Your task to perform on an android device: open app "Chime – Mobile Banking" (install if not already installed) and enter user name: "bullfrog@inbox.com" and password: "breaker" Image 0: 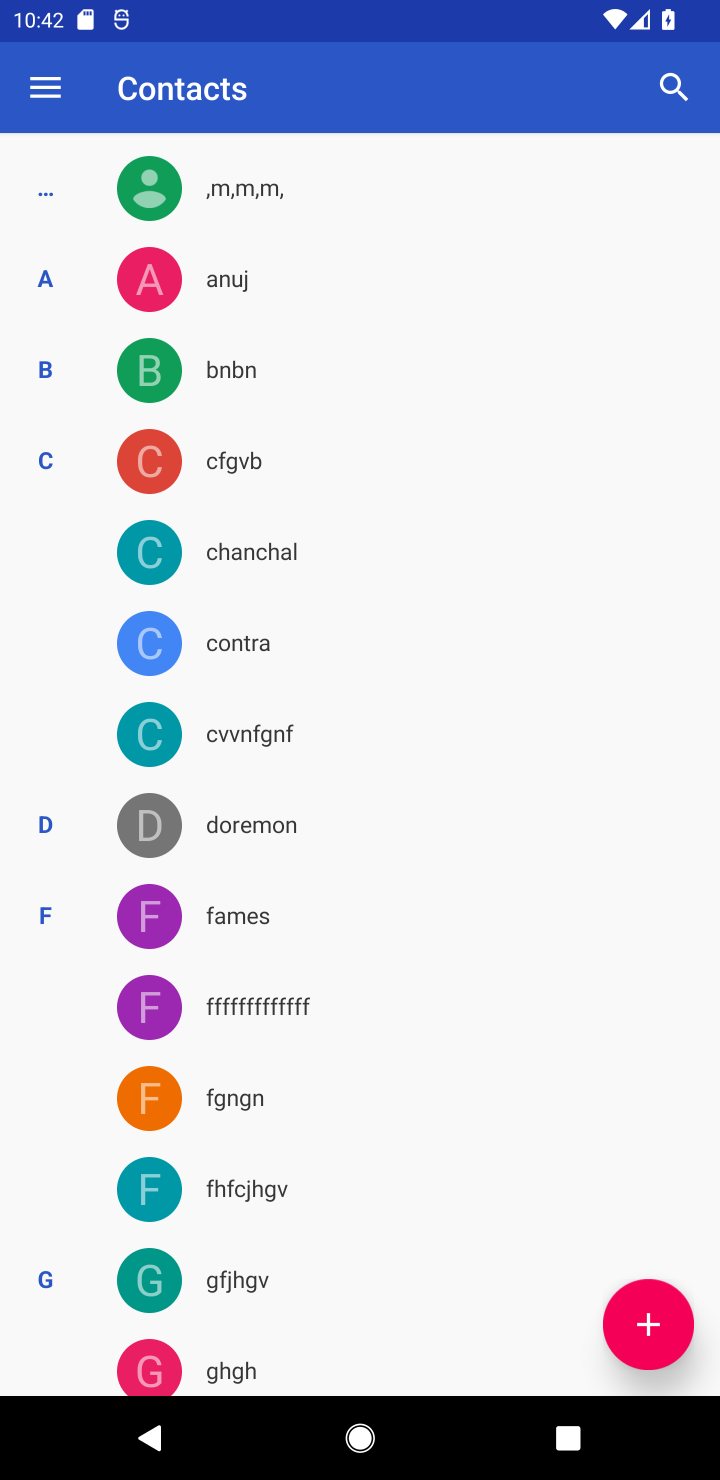
Step 0: press home button
Your task to perform on an android device: open app "Chime – Mobile Banking" (install if not already installed) and enter user name: "bullfrog@inbox.com" and password: "breaker" Image 1: 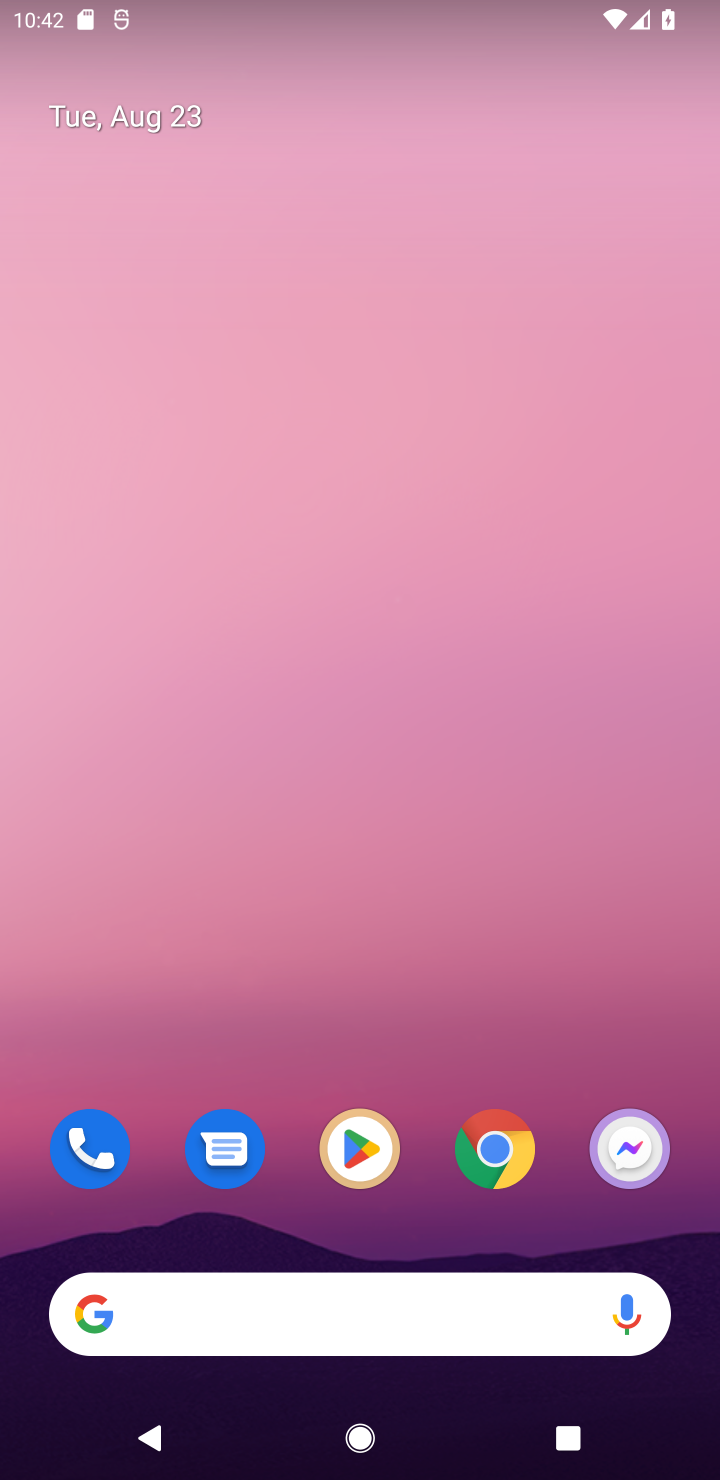
Step 1: click (344, 1125)
Your task to perform on an android device: open app "Chime – Mobile Banking" (install if not already installed) and enter user name: "bullfrog@inbox.com" and password: "breaker" Image 2: 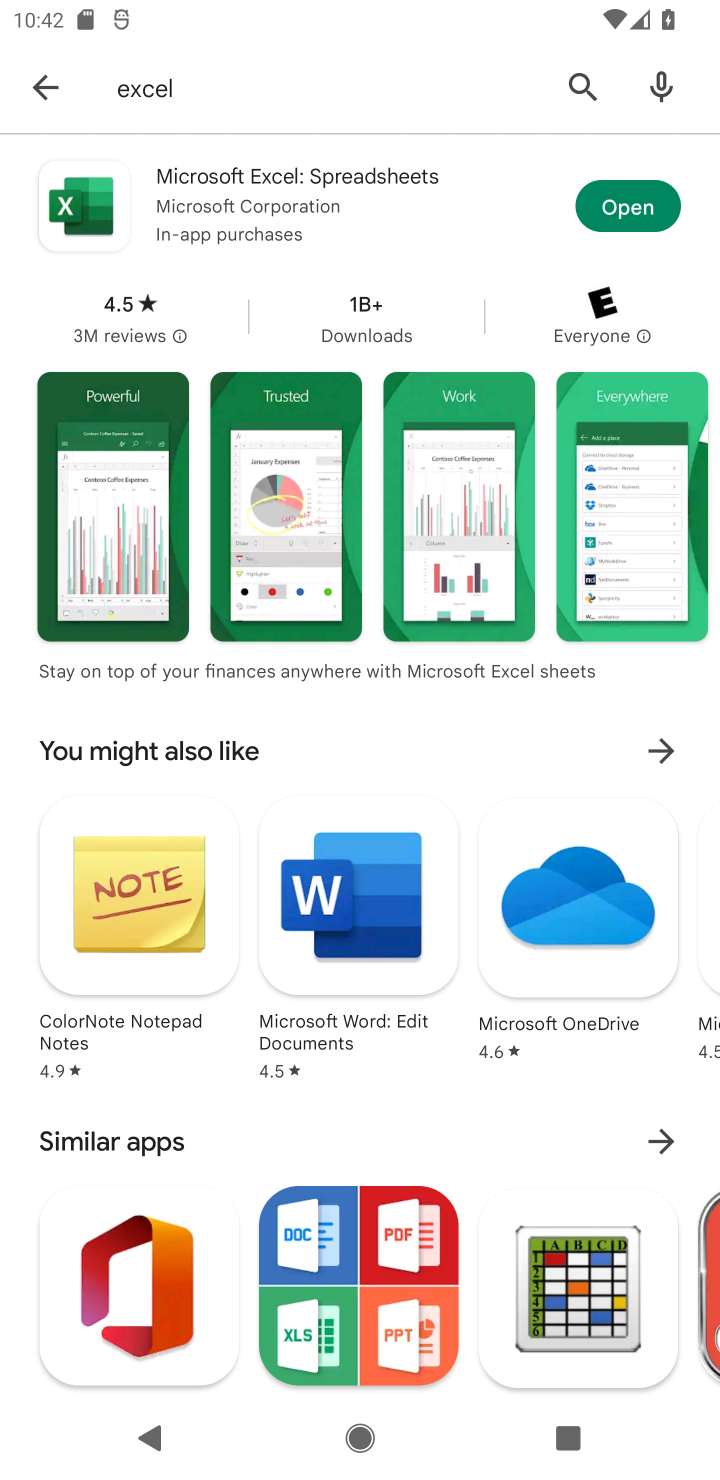
Step 2: click (571, 104)
Your task to perform on an android device: open app "Chime – Mobile Banking" (install if not already installed) and enter user name: "bullfrog@inbox.com" and password: "breaker" Image 3: 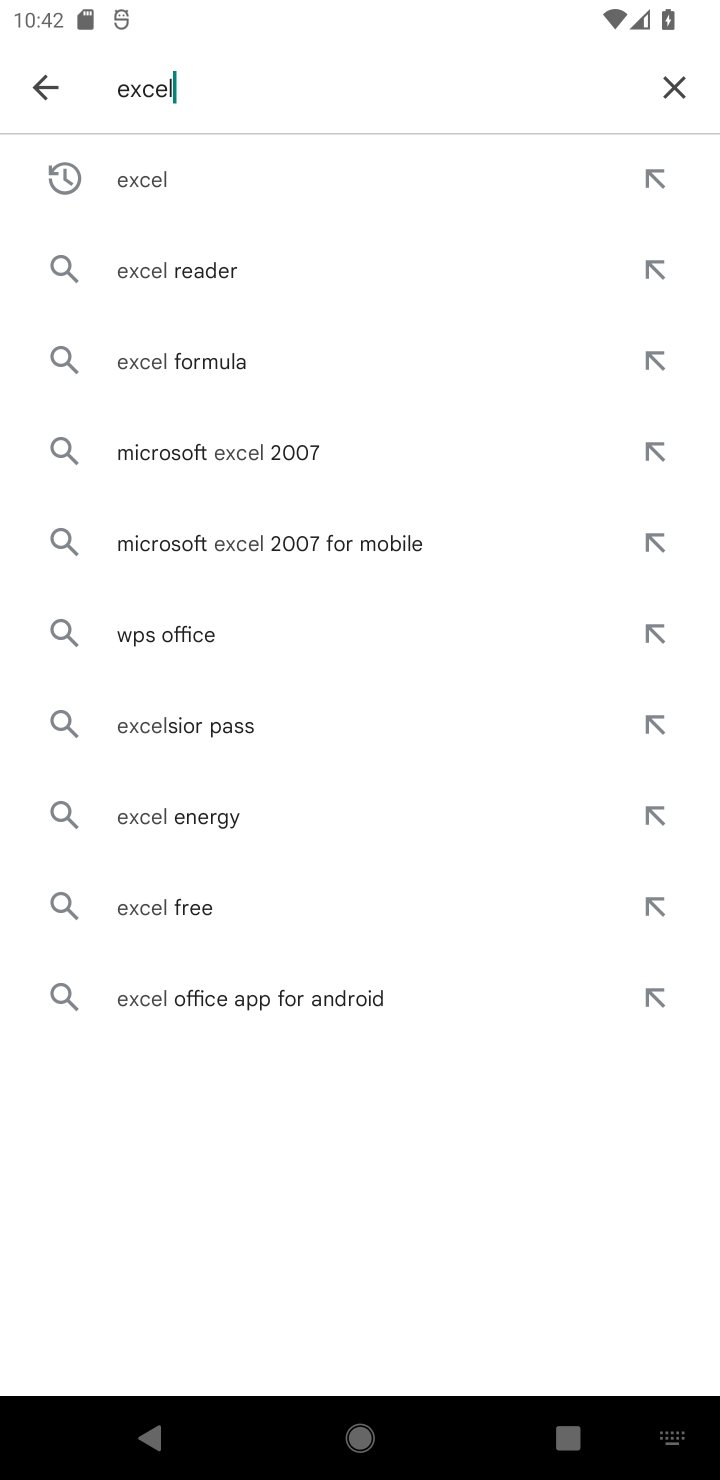
Step 3: click (667, 99)
Your task to perform on an android device: open app "Chime – Mobile Banking" (install if not already installed) and enter user name: "bullfrog@inbox.com" and password: "breaker" Image 4: 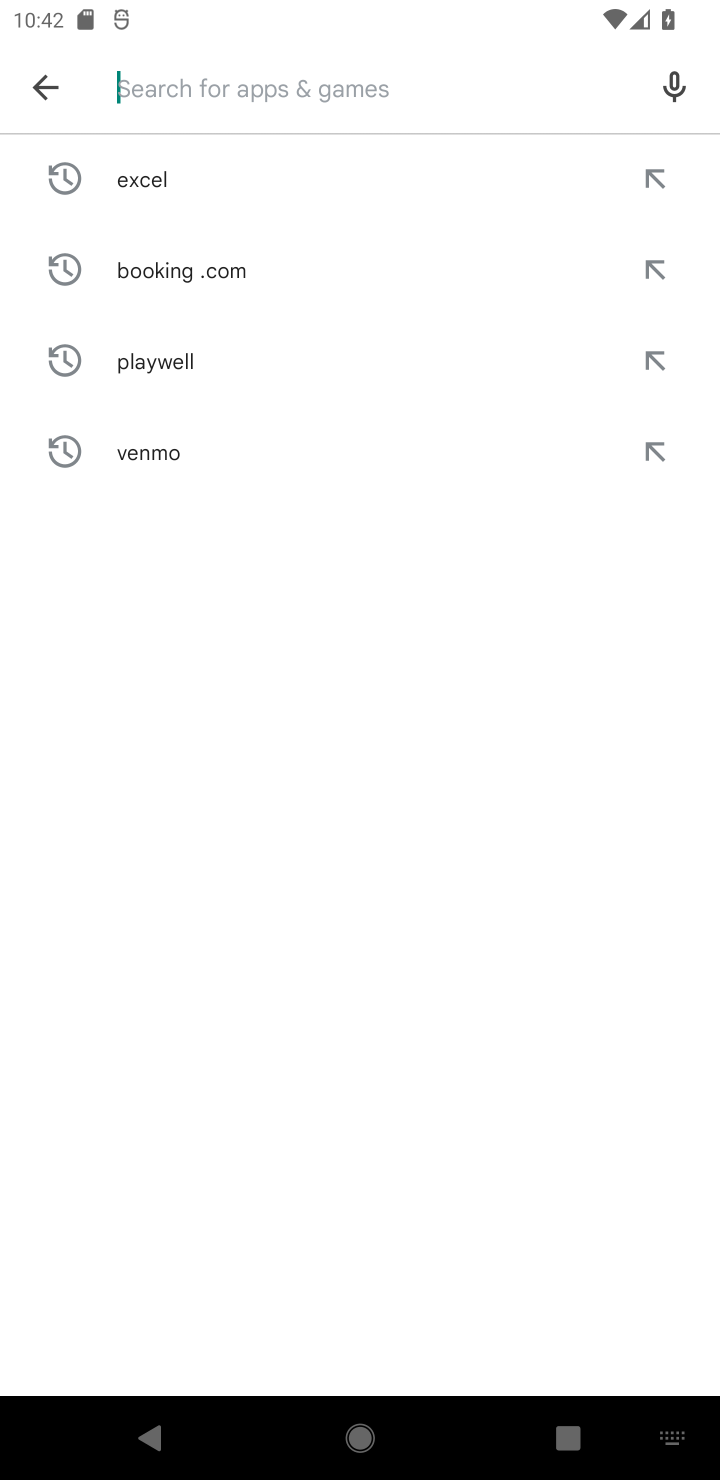
Step 4: type "chinme"
Your task to perform on an android device: open app "Chime – Mobile Banking" (install if not already installed) and enter user name: "bullfrog@inbox.com" and password: "breaker" Image 5: 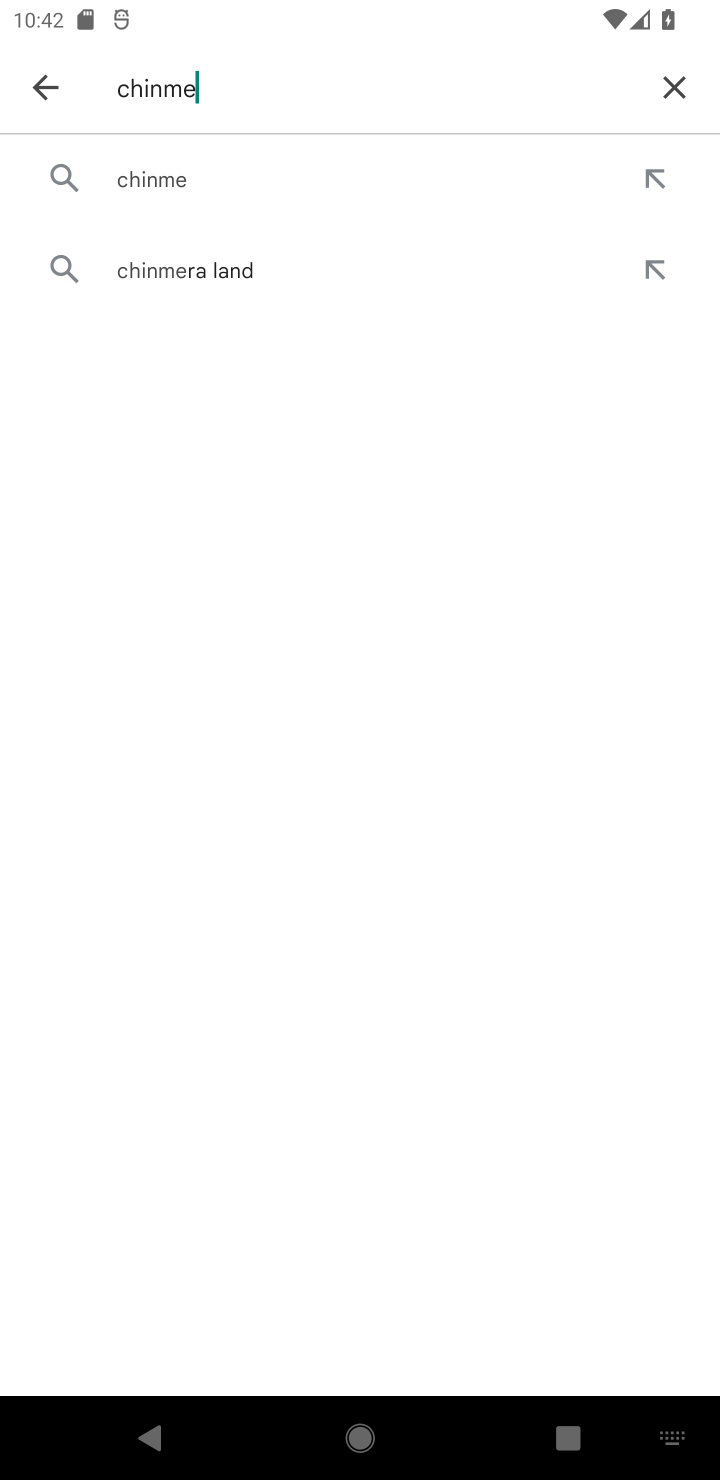
Step 5: click (344, 172)
Your task to perform on an android device: open app "Chime – Mobile Banking" (install if not already installed) and enter user name: "bullfrog@inbox.com" and password: "breaker" Image 6: 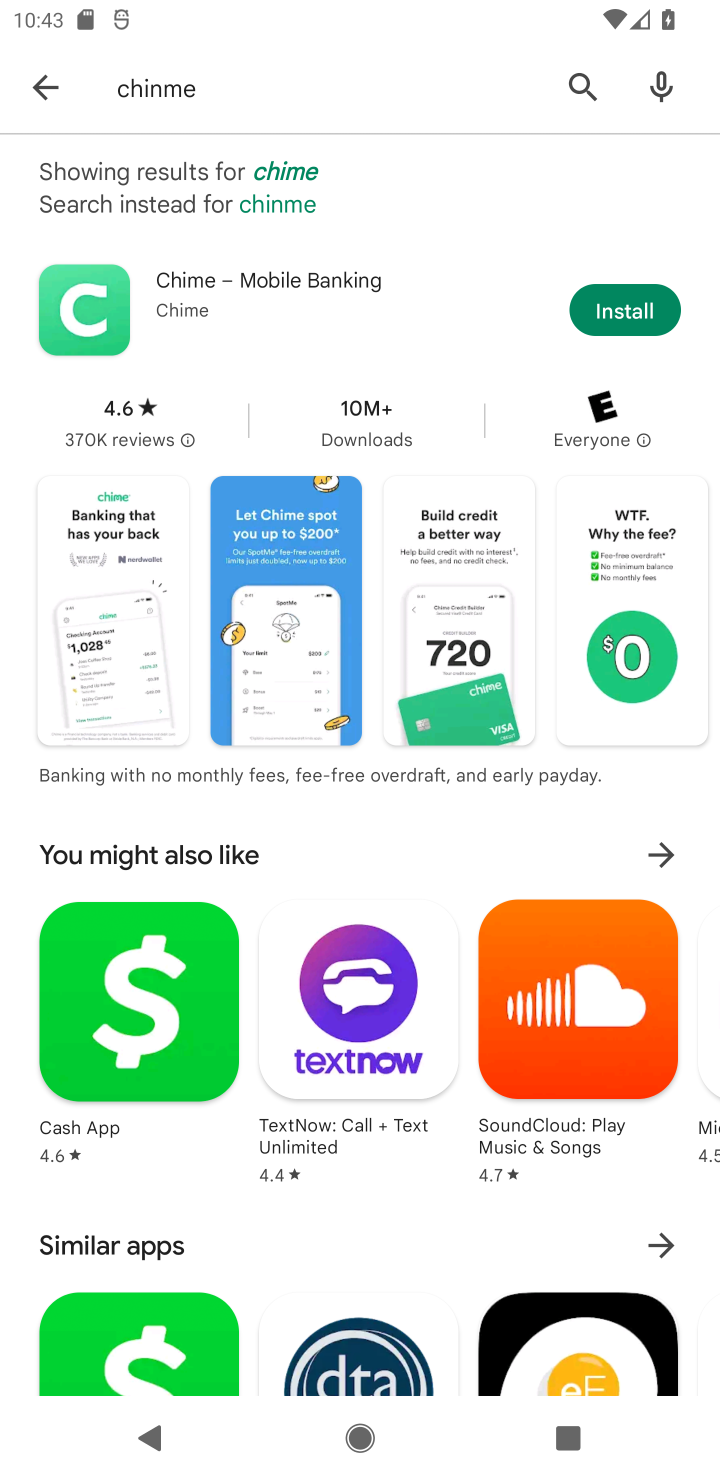
Step 6: click (630, 333)
Your task to perform on an android device: open app "Chime – Mobile Banking" (install if not already installed) and enter user name: "bullfrog@inbox.com" and password: "breaker" Image 7: 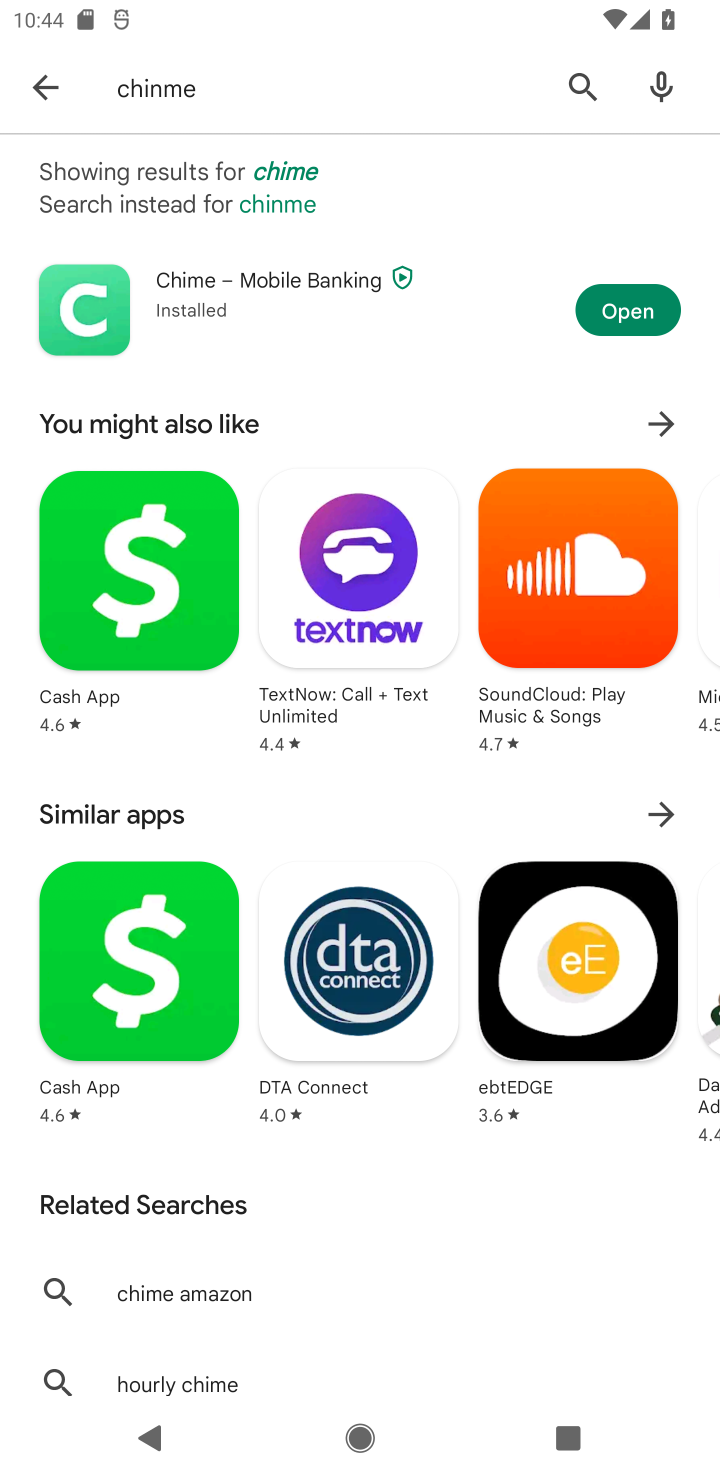
Step 7: click (629, 293)
Your task to perform on an android device: open app "Chime – Mobile Banking" (install if not already installed) and enter user name: "bullfrog@inbox.com" and password: "breaker" Image 8: 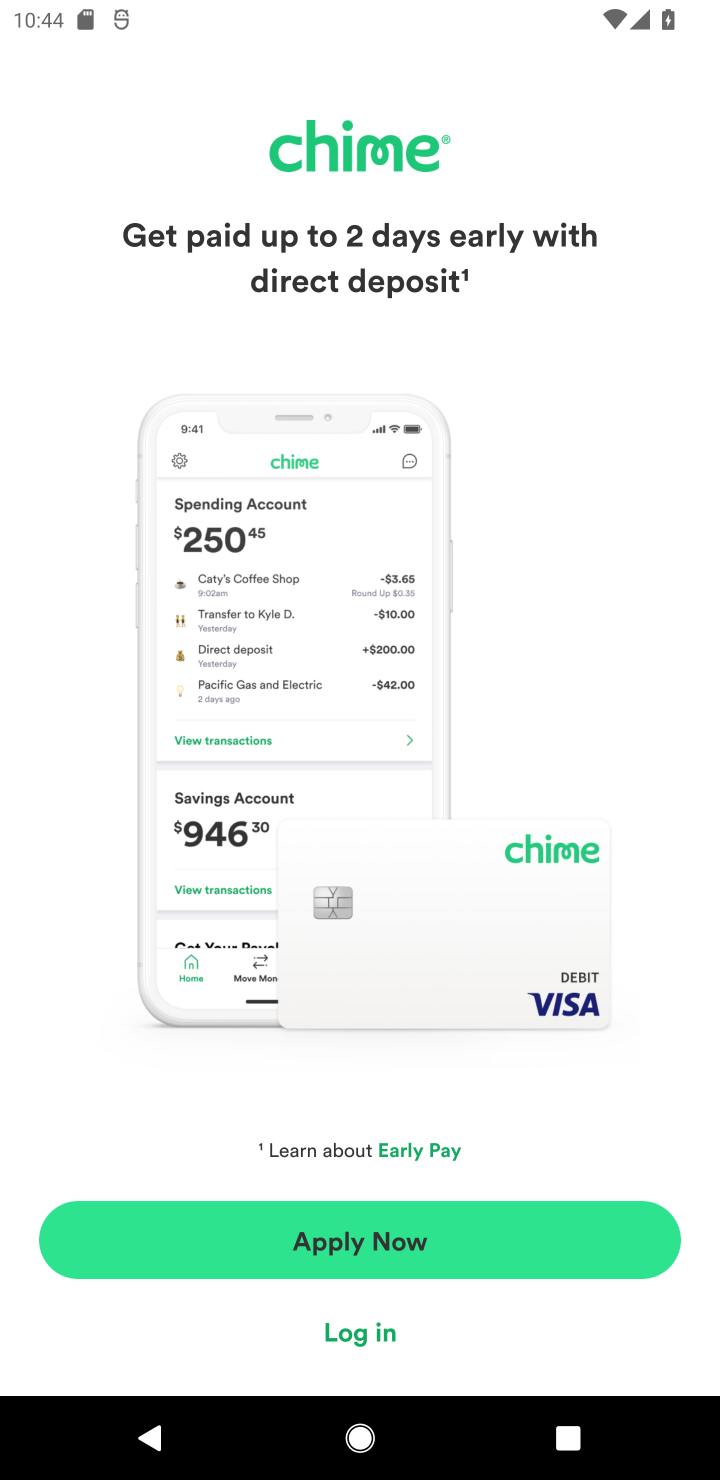
Step 8: click (364, 1335)
Your task to perform on an android device: open app "Chime – Mobile Banking" (install if not already installed) and enter user name: "bullfrog@inbox.com" and password: "breaker" Image 9: 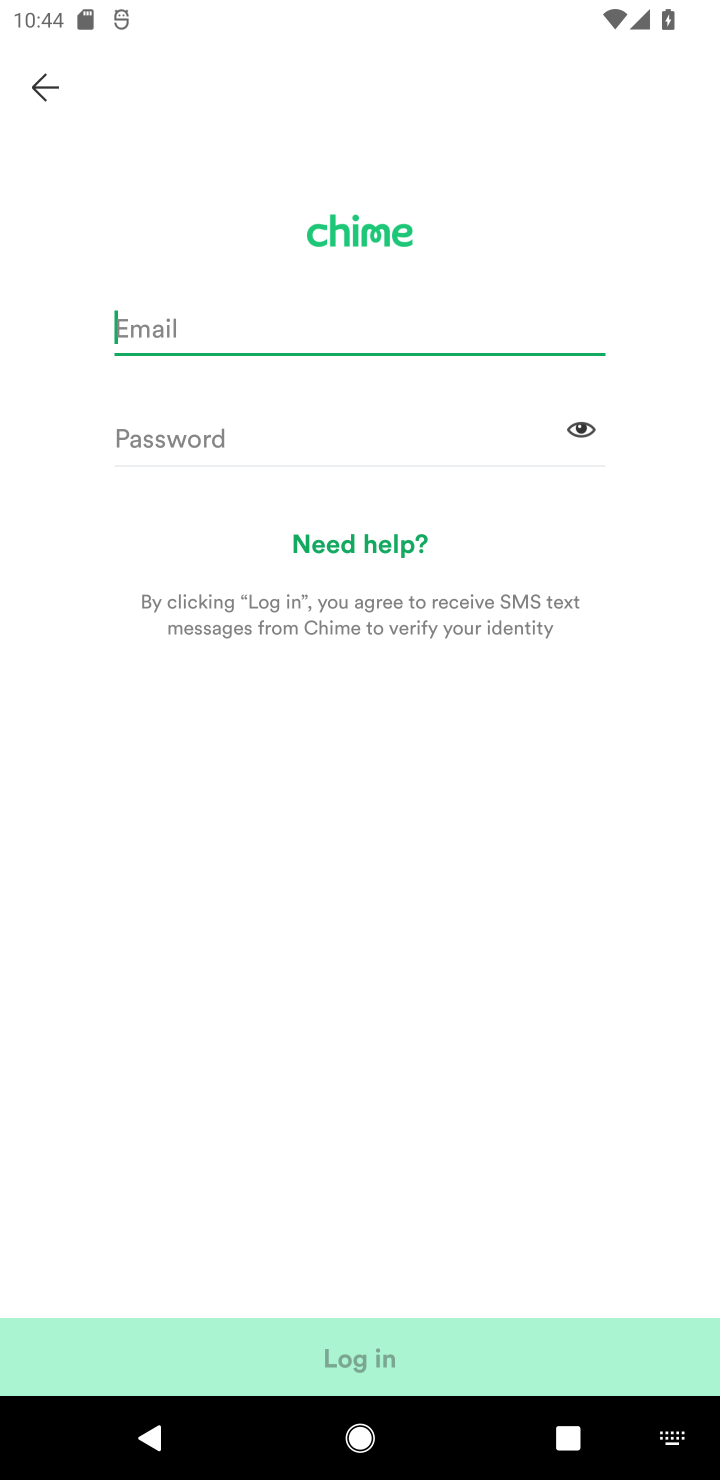
Step 9: type "bullfrog@inbox.com"
Your task to perform on an android device: open app "Chime – Mobile Banking" (install if not already installed) and enter user name: "bullfrog@inbox.com" and password: "breaker" Image 10: 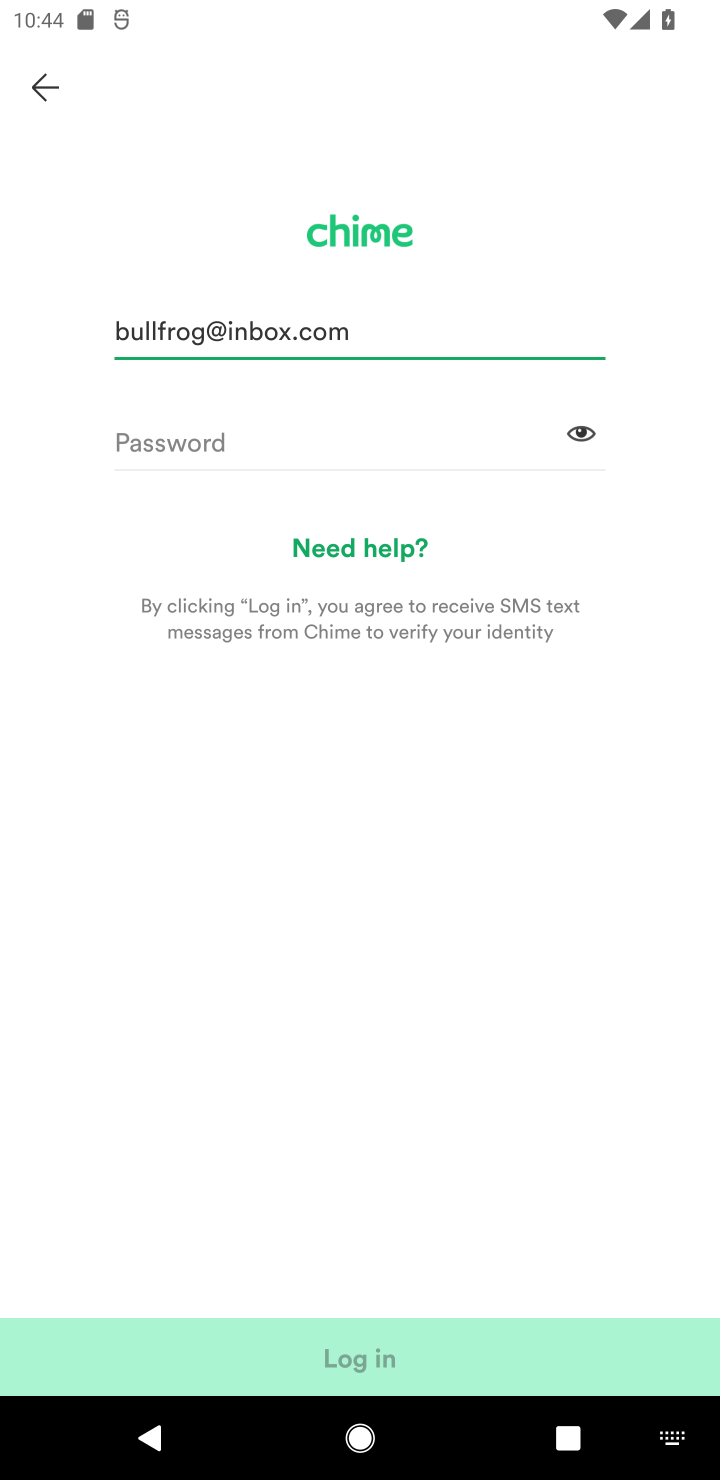
Step 10: click (217, 441)
Your task to perform on an android device: open app "Chime – Mobile Banking" (install if not already installed) and enter user name: "bullfrog@inbox.com" and password: "breaker" Image 11: 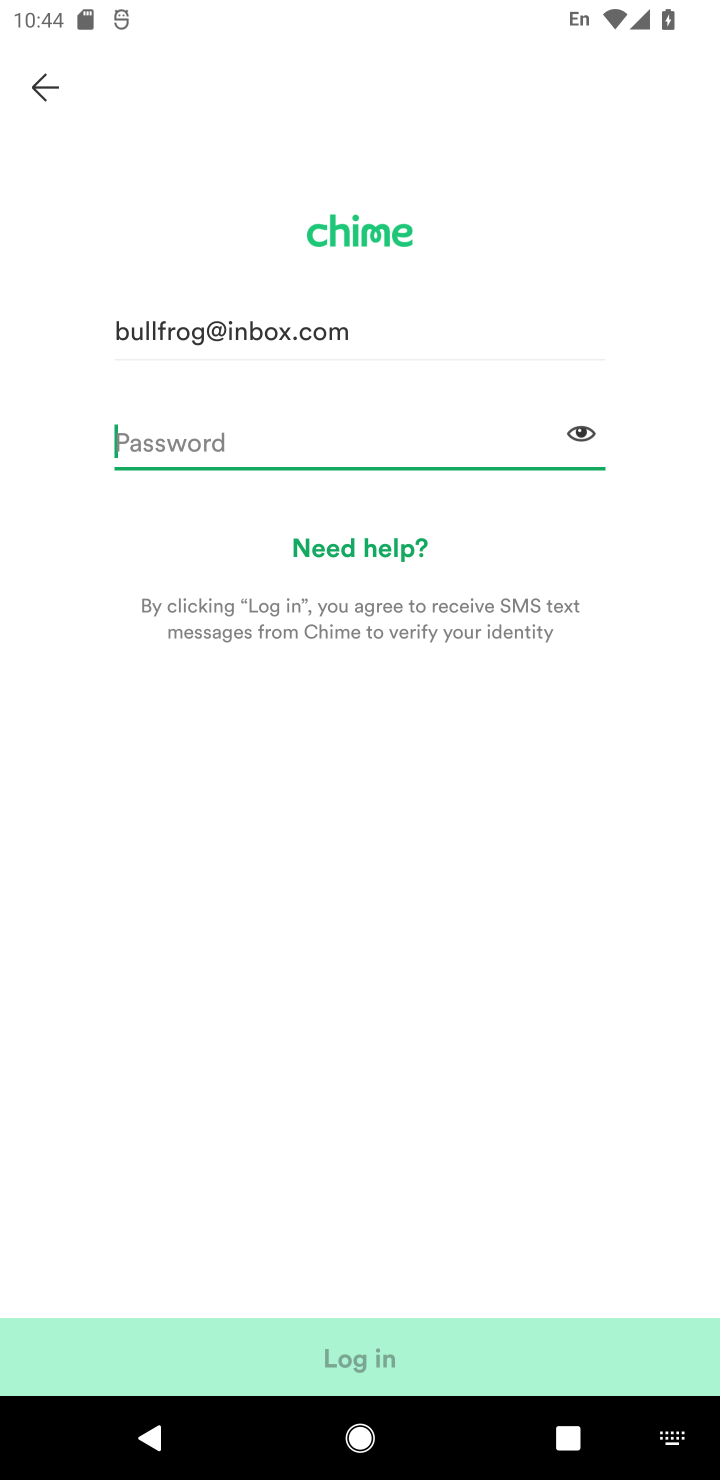
Step 11: type "breaker"
Your task to perform on an android device: open app "Chime – Mobile Banking" (install if not already installed) and enter user name: "bullfrog@inbox.com" and password: "breaker" Image 12: 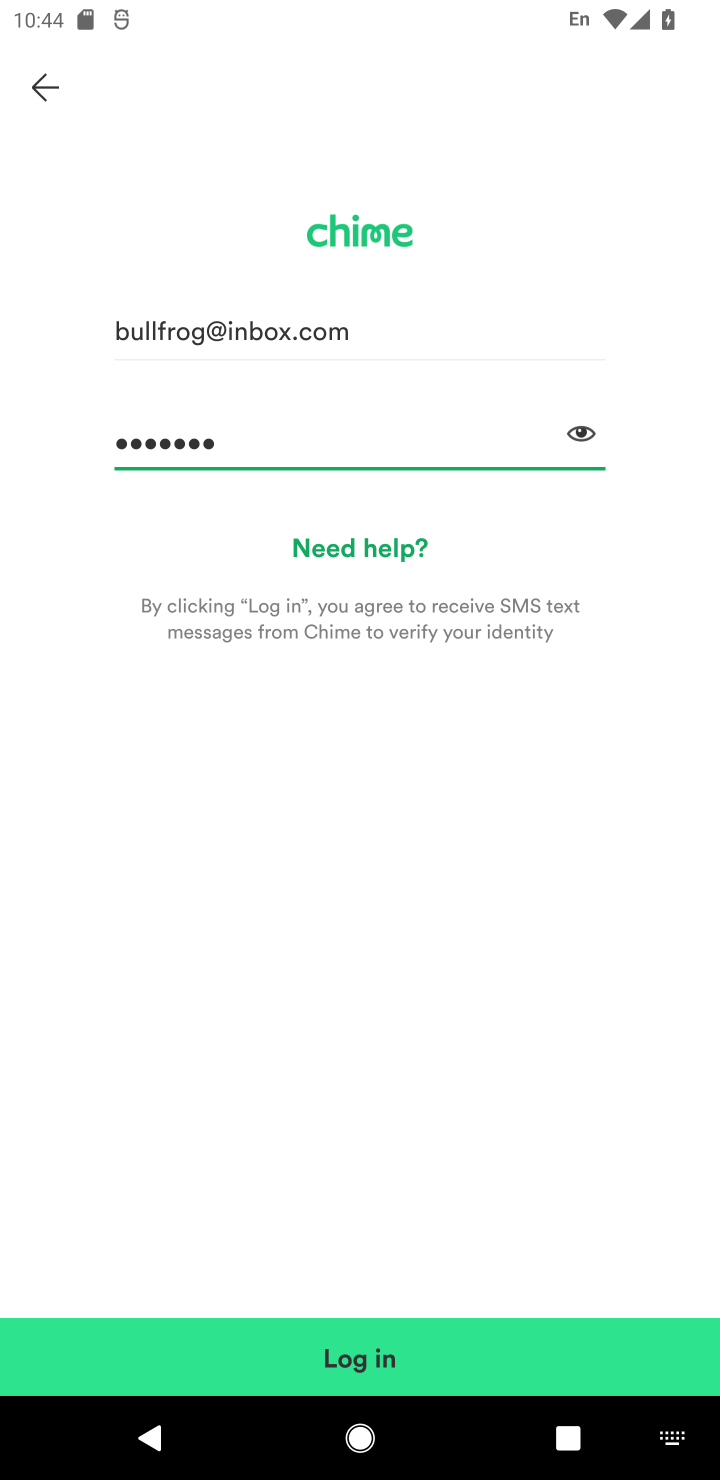
Step 12: click (333, 1351)
Your task to perform on an android device: open app "Chime – Mobile Banking" (install if not already installed) and enter user name: "bullfrog@inbox.com" and password: "breaker" Image 13: 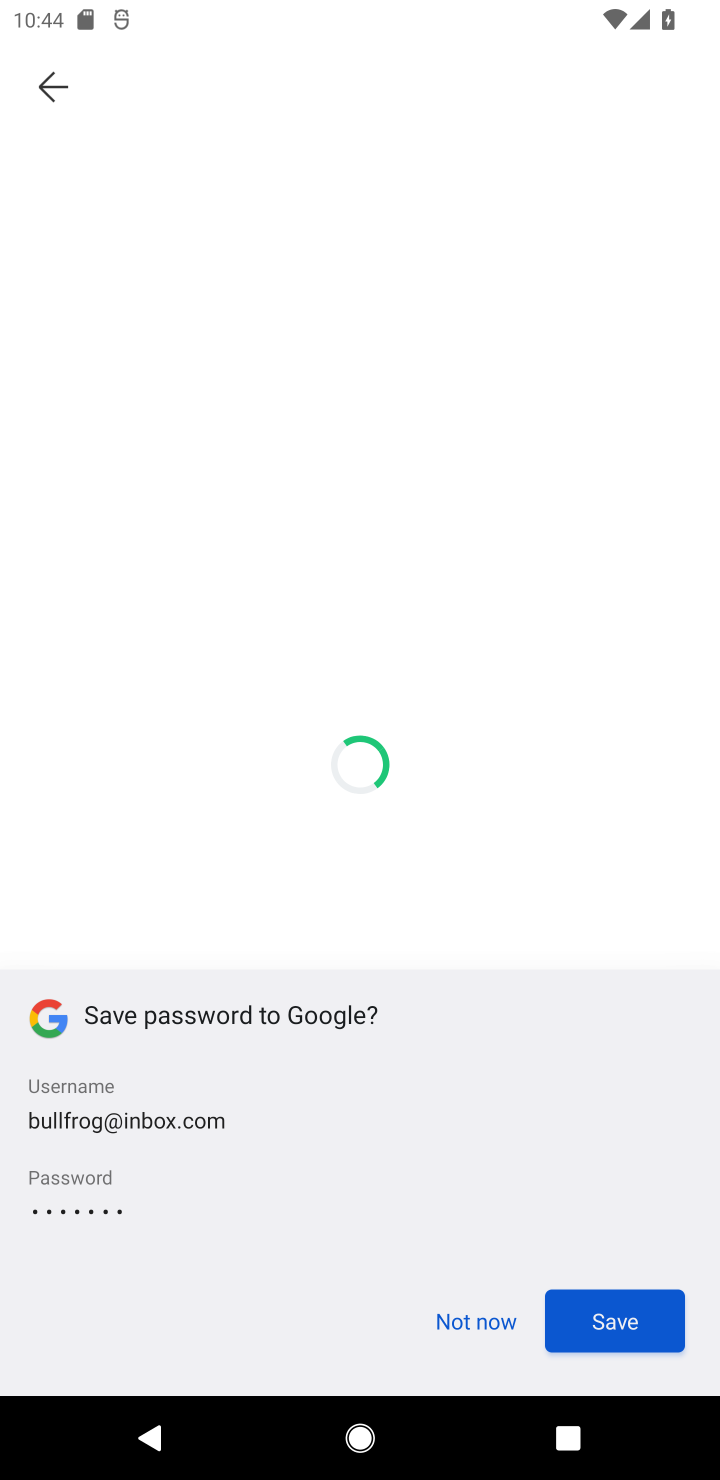
Step 13: click (473, 1323)
Your task to perform on an android device: open app "Chime – Mobile Banking" (install if not already installed) and enter user name: "bullfrog@inbox.com" and password: "breaker" Image 14: 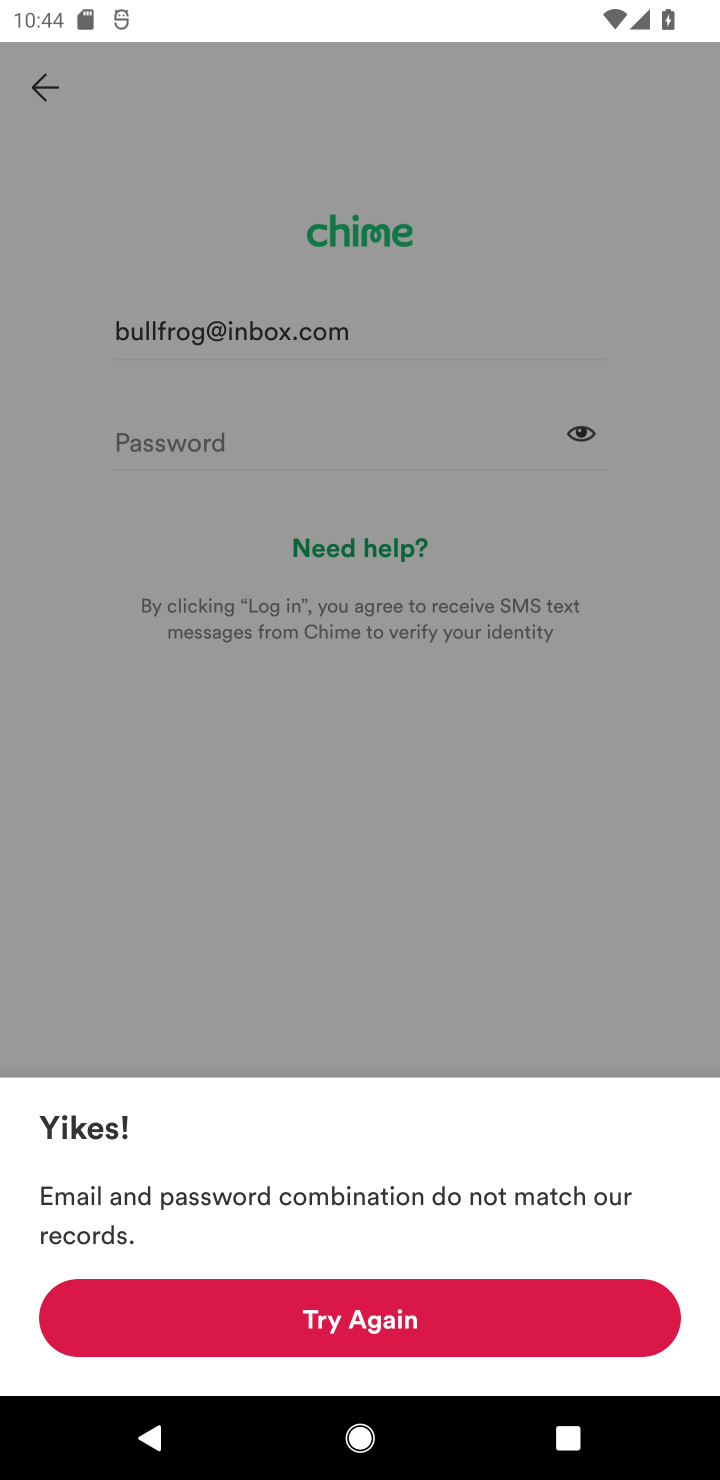
Step 14: task complete